Your task to perform on an android device: Search for Italian restaurants on Maps Image 0: 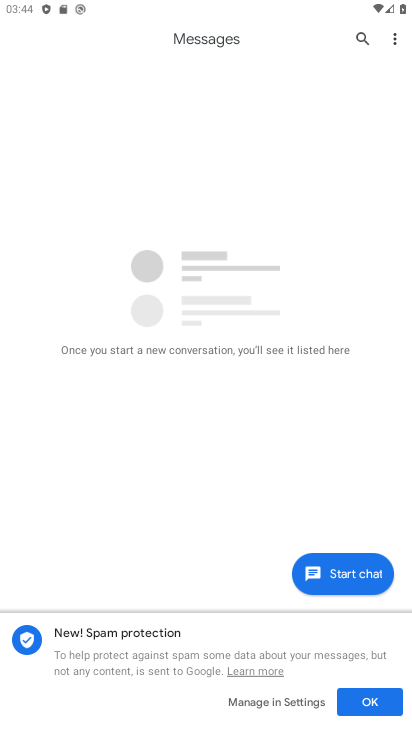
Step 0: press home button
Your task to perform on an android device: Search for Italian restaurants on Maps Image 1: 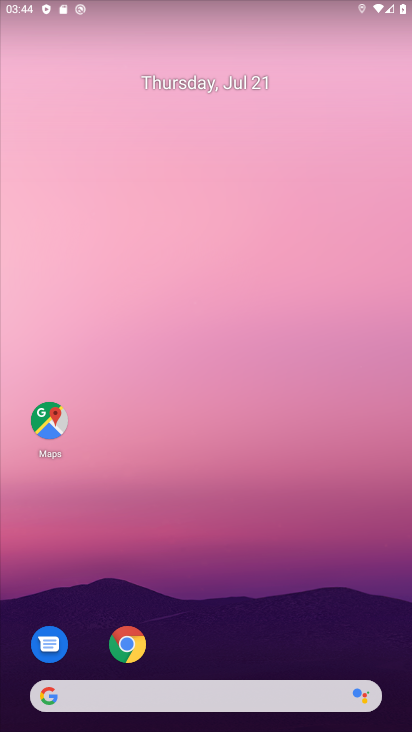
Step 1: click (49, 417)
Your task to perform on an android device: Search for Italian restaurants on Maps Image 2: 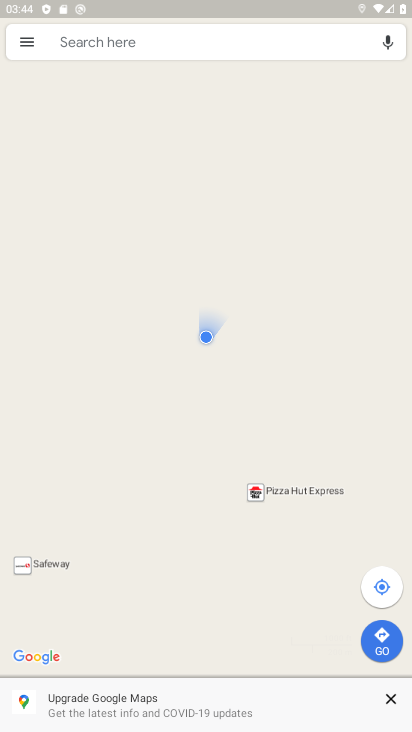
Step 2: click (101, 46)
Your task to perform on an android device: Search for Italian restaurants on Maps Image 3: 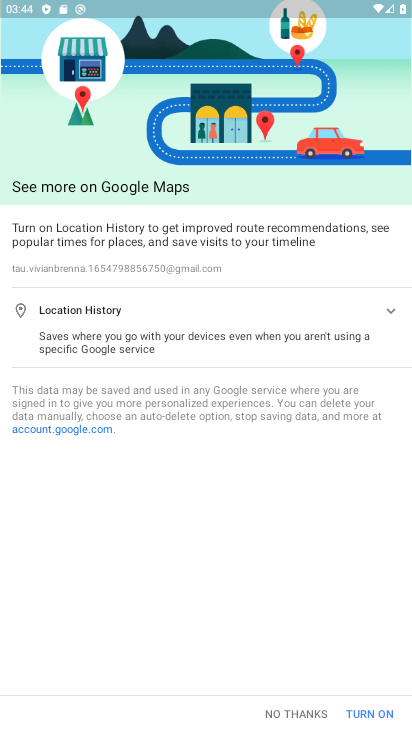
Step 3: click (306, 716)
Your task to perform on an android device: Search for Italian restaurants on Maps Image 4: 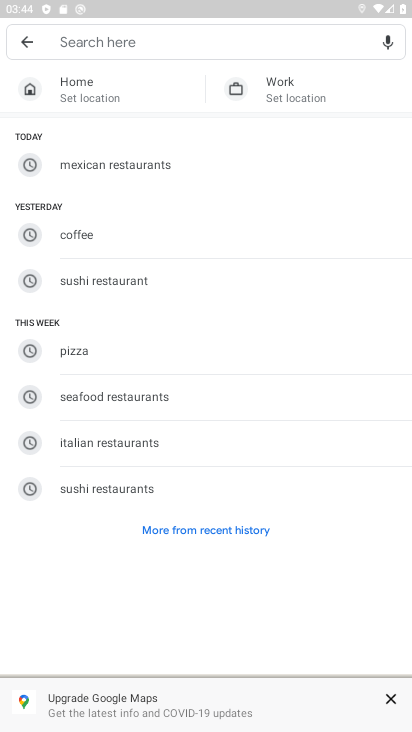
Step 4: click (94, 45)
Your task to perform on an android device: Search for Italian restaurants on Maps Image 5: 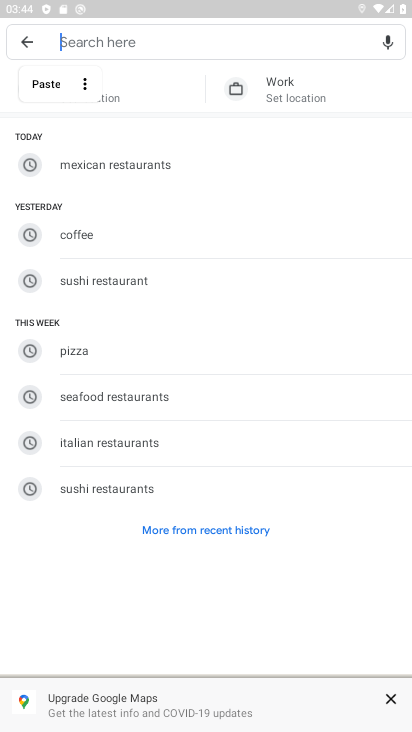
Step 5: type "Italian restaurants"
Your task to perform on an android device: Search for Italian restaurants on Maps Image 6: 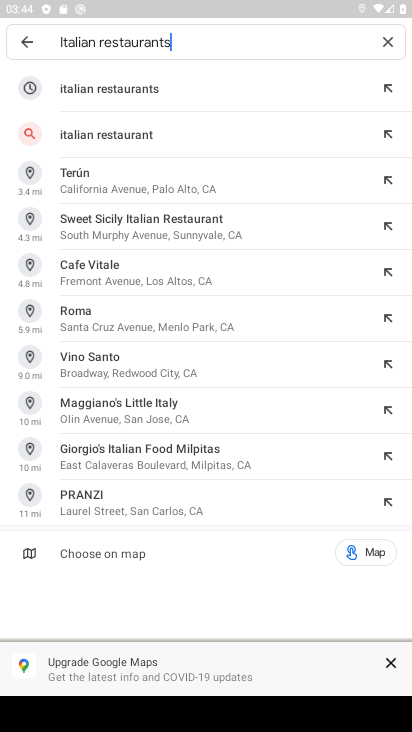
Step 6: click (89, 94)
Your task to perform on an android device: Search for Italian restaurants on Maps Image 7: 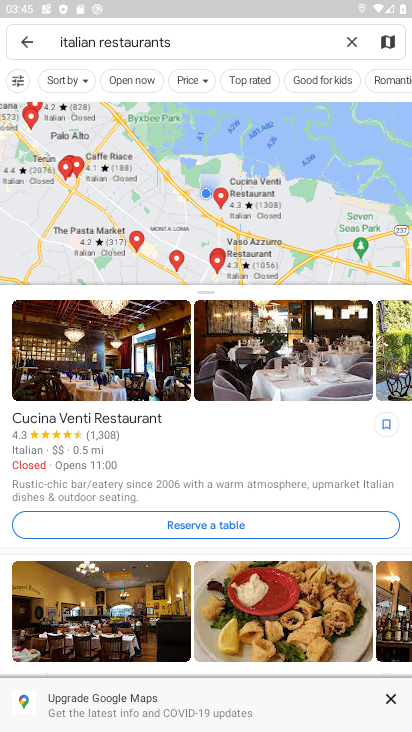
Step 7: task complete